Your task to perform on an android device: stop showing notifications on the lock screen Image 0: 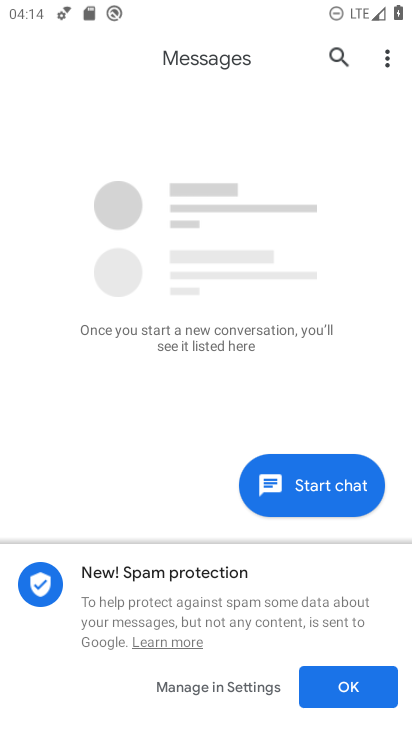
Step 0: press home button
Your task to perform on an android device: stop showing notifications on the lock screen Image 1: 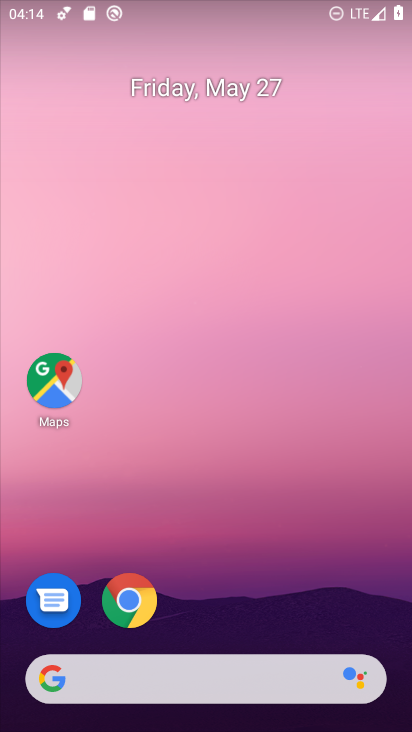
Step 1: drag from (205, 721) to (207, 121)
Your task to perform on an android device: stop showing notifications on the lock screen Image 2: 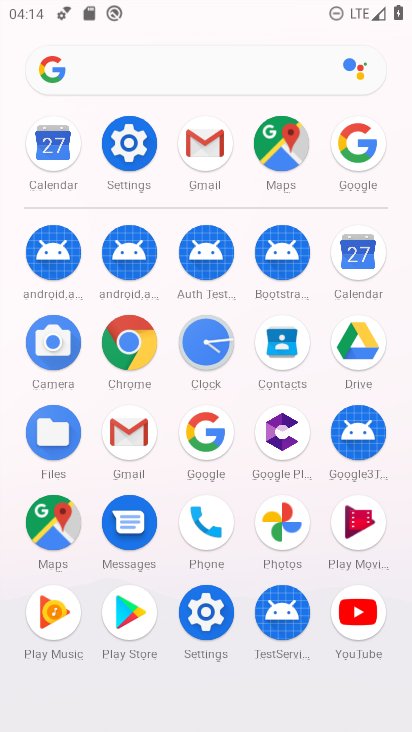
Step 2: click (126, 145)
Your task to perform on an android device: stop showing notifications on the lock screen Image 3: 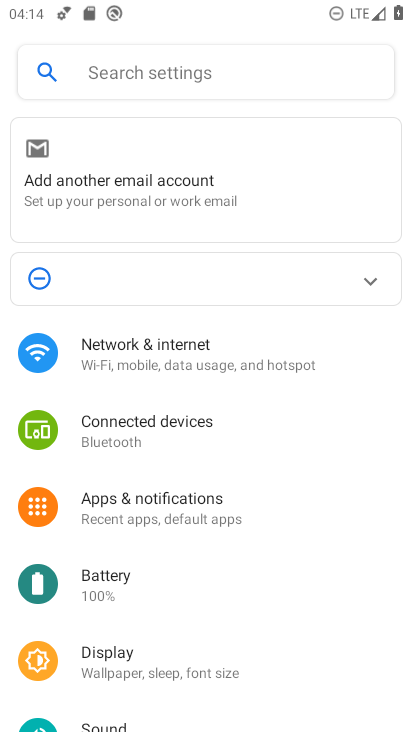
Step 3: drag from (158, 691) to (152, 511)
Your task to perform on an android device: stop showing notifications on the lock screen Image 4: 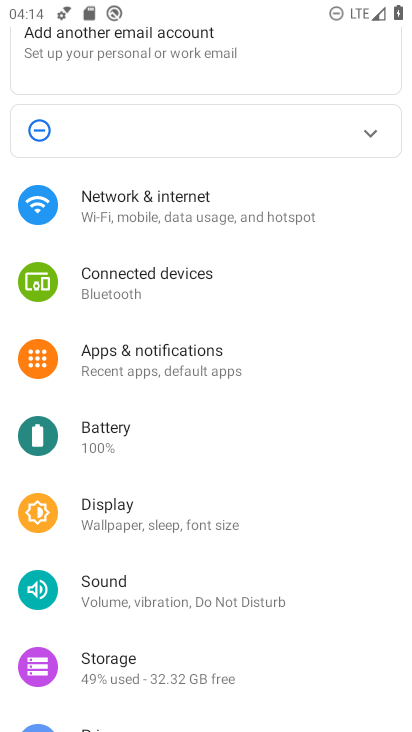
Step 4: click (134, 363)
Your task to perform on an android device: stop showing notifications on the lock screen Image 5: 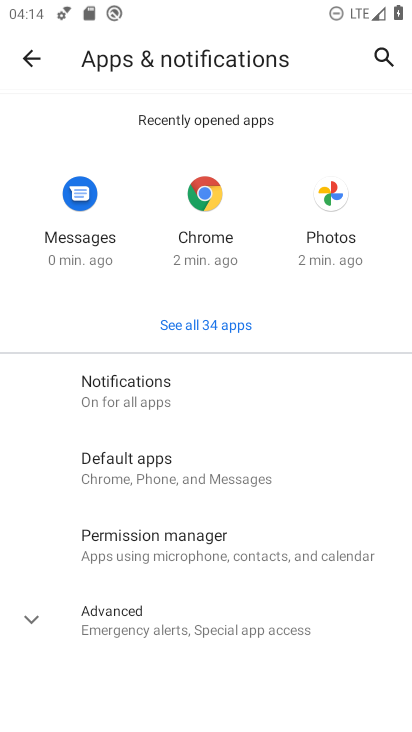
Step 5: click (129, 388)
Your task to perform on an android device: stop showing notifications on the lock screen Image 6: 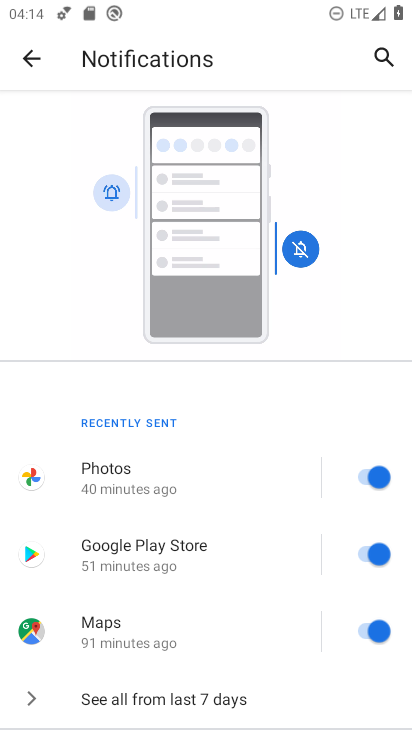
Step 6: task complete